Your task to perform on an android device: set the stopwatch Image 0: 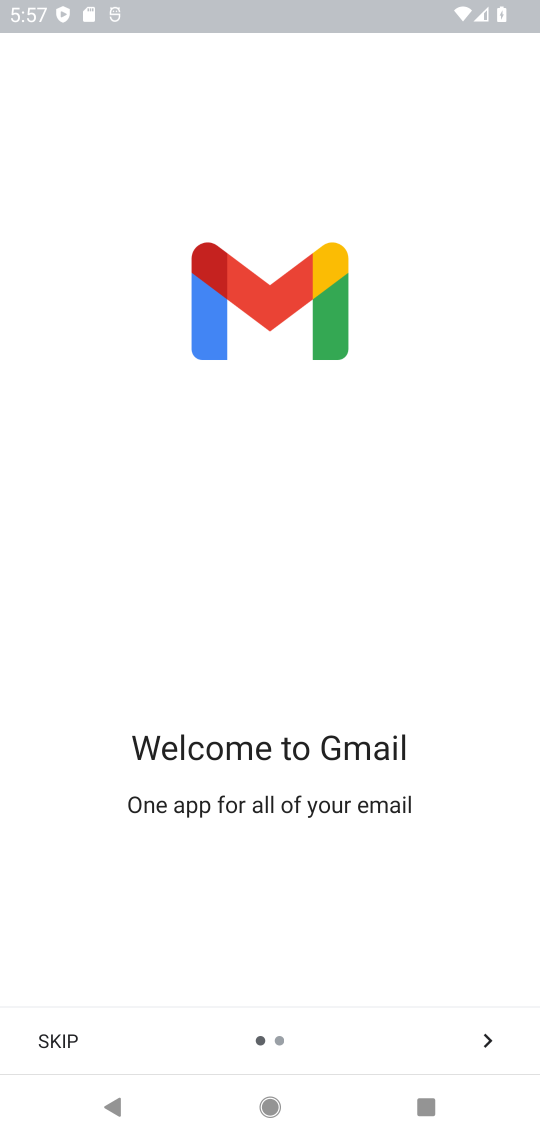
Step 0: press home button
Your task to perform on an android device: set the stopwatch Image 1: 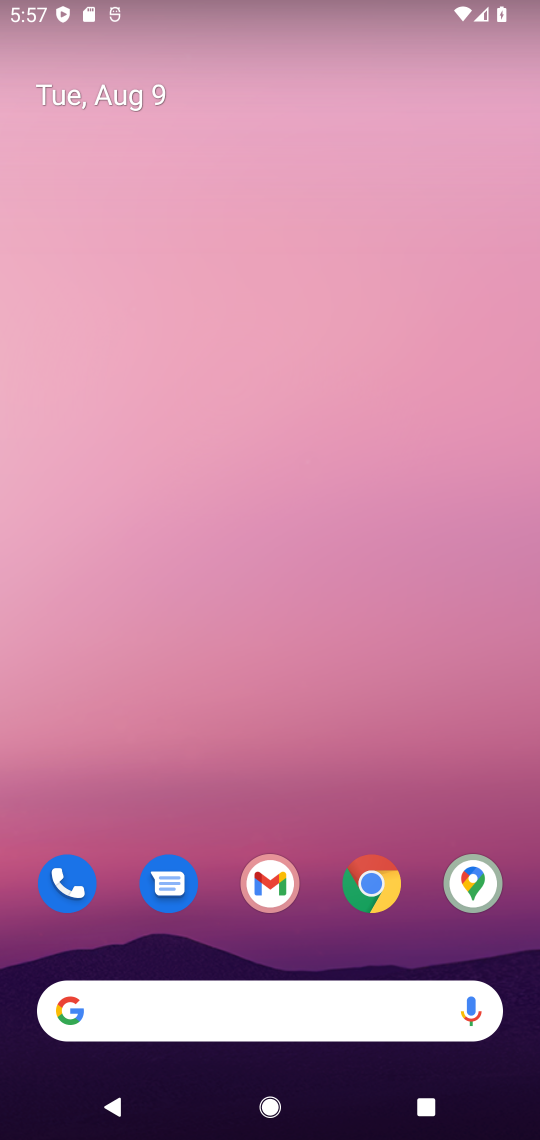
Step 1: drag from (278, 694) to (240, 126)
Your task to perform on an android device: set the stopwatch Image 2: 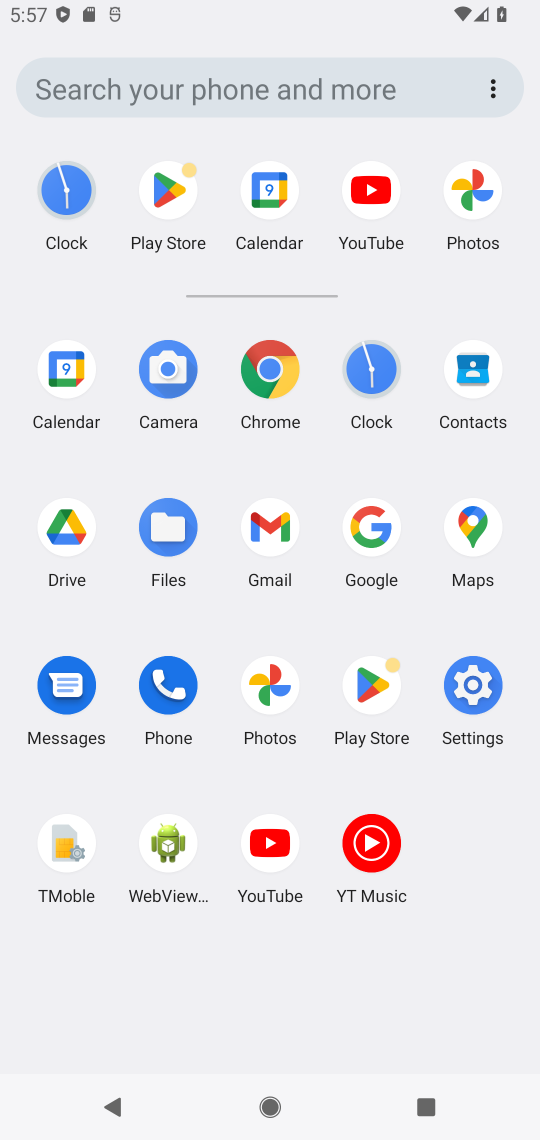
Step 2: click (351, 367)
Your task to perform on an android device: set the stopwatch Image 3: 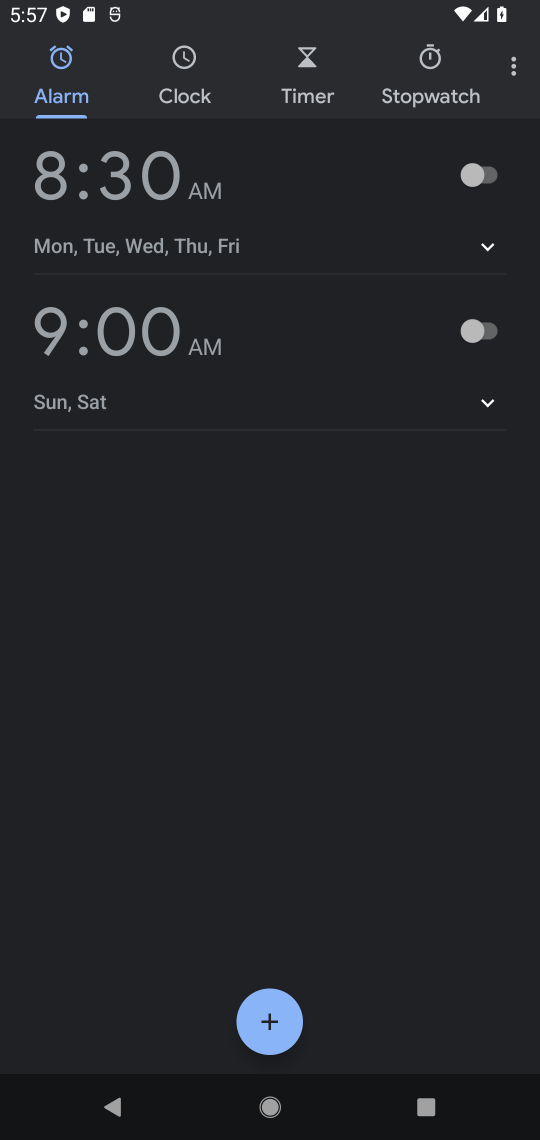
Step 3: click (415, 59)
Your task to perform on an android device: set the stopwatch Image 4: 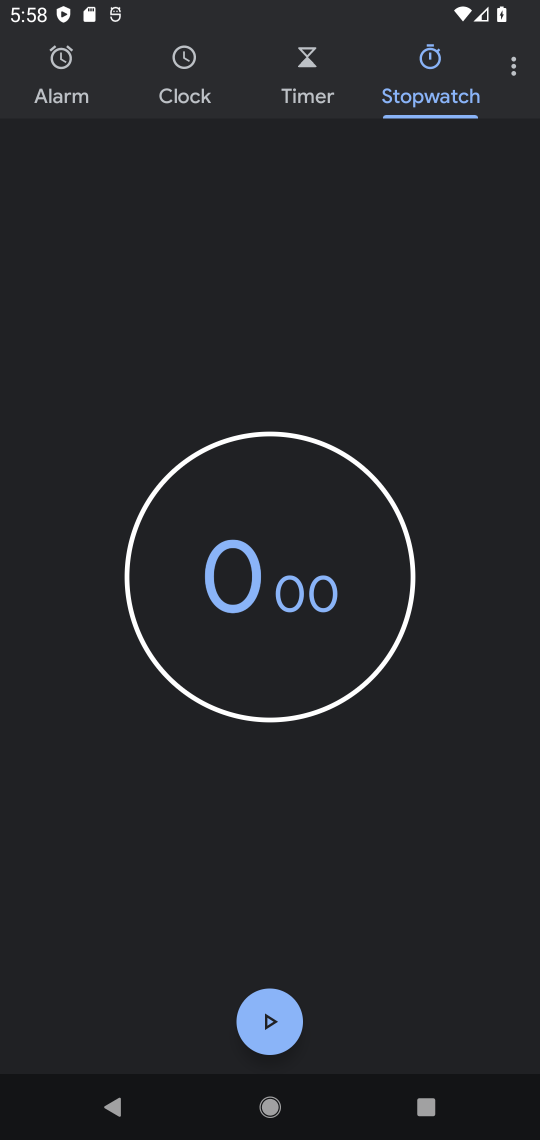
Step 4: click (271, 1039)
Your task to perform on an android device: set the stopwatch Image 5: 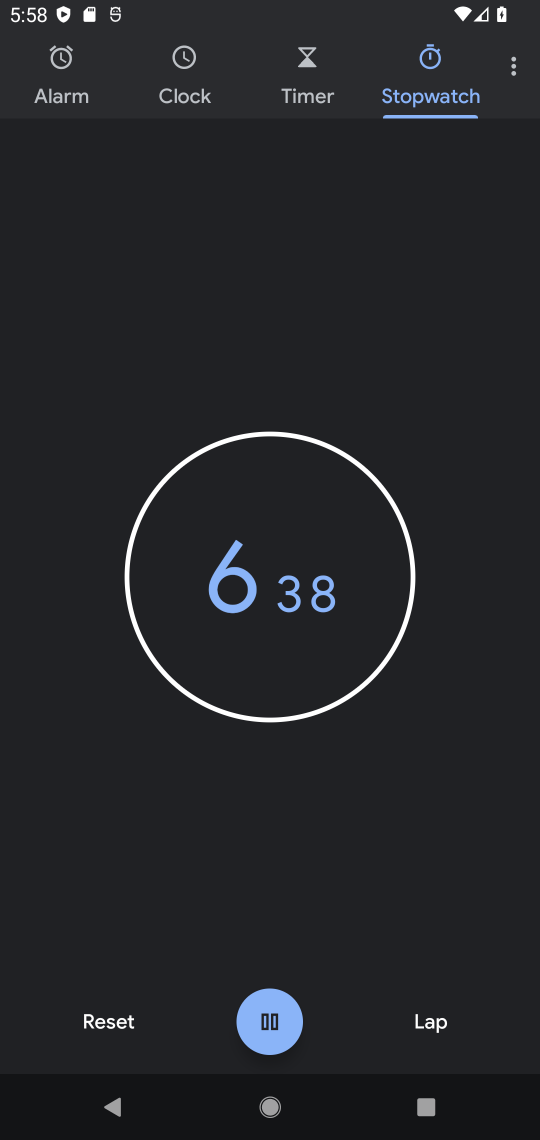
Step 5: task complete